Your task to perform on an android device: open device folders in google photos Image 0: 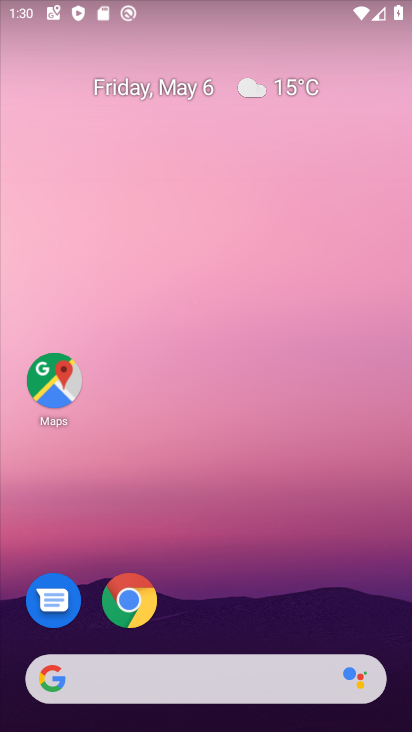
Step 0: drag from (320, 619) to (381, 73)
Your task to perform on an android device: open device folders in google photos Image 1: 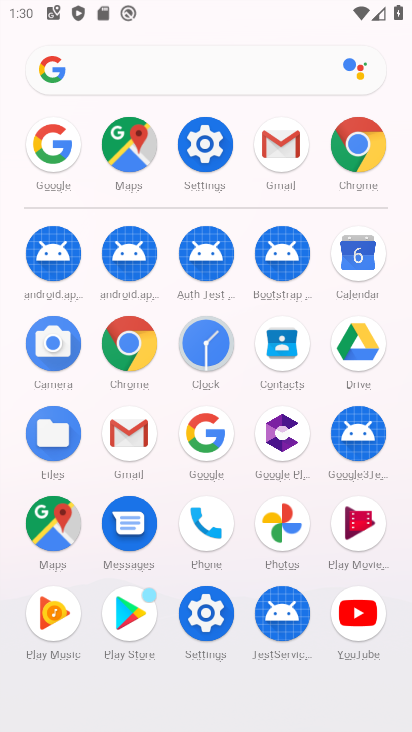
Step 1: click (276, 522)
Your task to perform on an android device: open device folders in google photos Image 2: 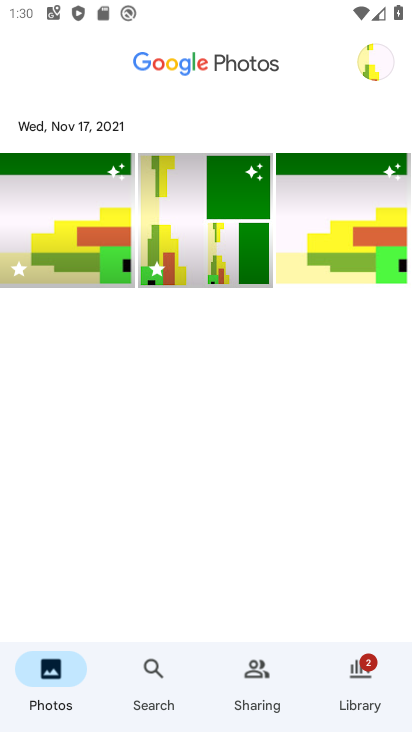
Step 2: click (370, 63)
Your task to perform on an android device: open device folders in google photos Image 3: 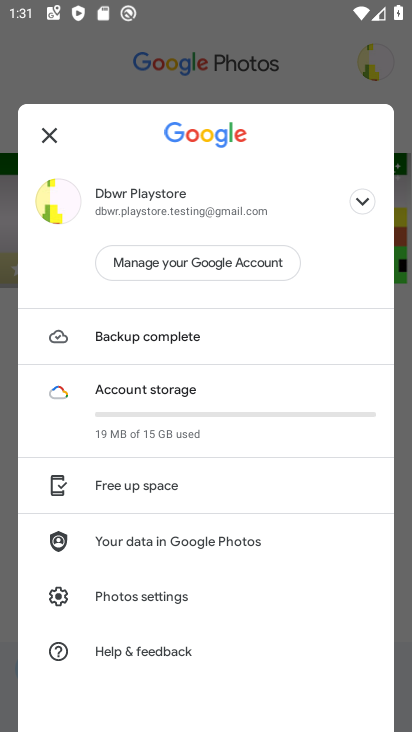
Step 3: task complete